Your task to perform on an android device: stop showing notifications on the lock screen Image 0: 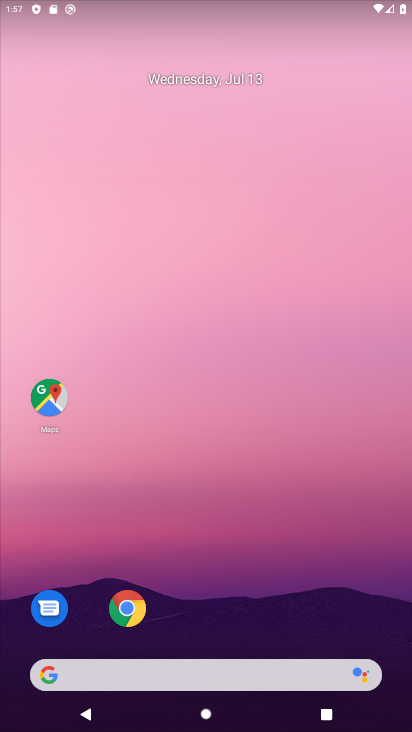
Step 0: drag from (193, 596) to (220, 128)
Your task to perform on an android device: stop showing notifications on the lock screen Image 1: 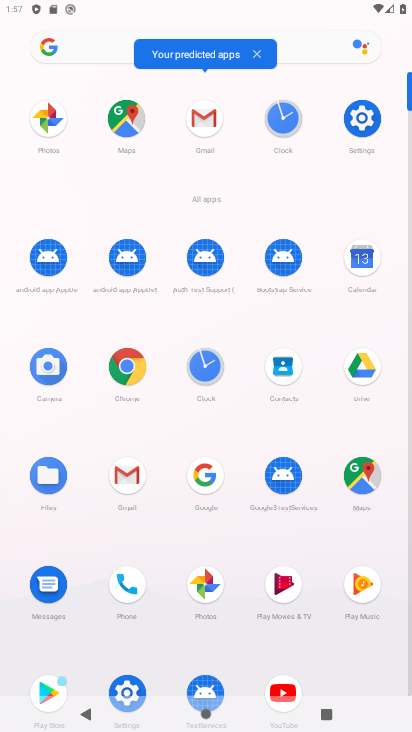
Step 1: click (130, 273)
Your task to perform on an android device: stop showing notifications on the lock screen Image 2: 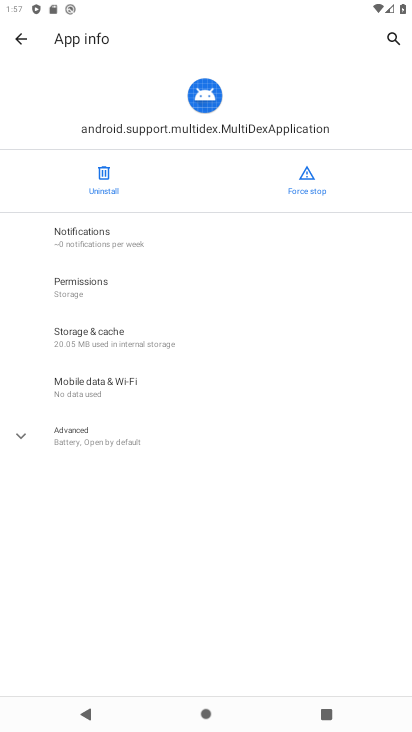
Step 2: click (19, 29)
Your task to perform on an android device: stop showing notifications on the lock screen Image 3: 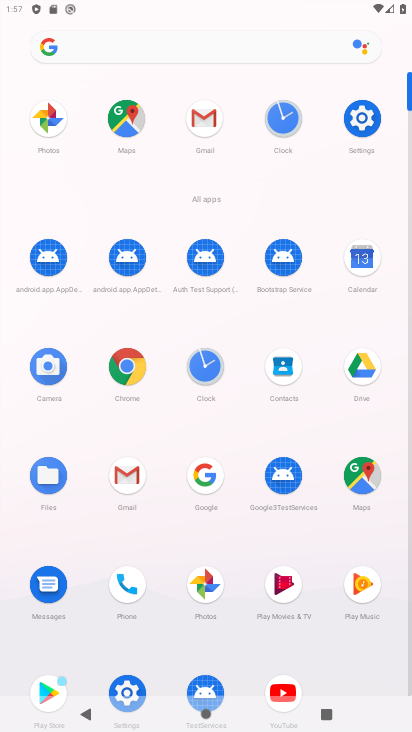
Step 3: click (19, 35)
Your task to perform on an android device: stop showing notifications on the lock screen Image 4: 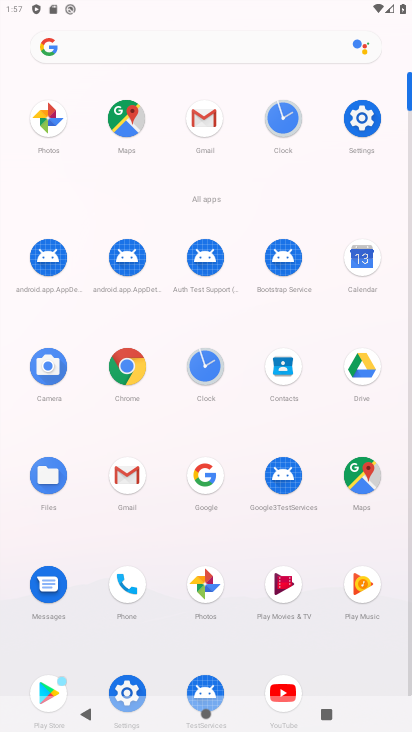
Step 4: click (364, 113)
Your task to perform on an android device: stop showing notifications on the lock screen Image 5: 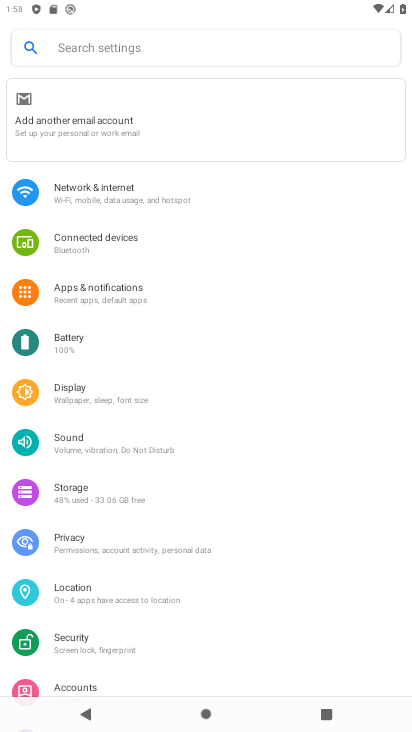
Step 5: click (96, 289)
Your task to perform on an android device: stop showing notifications on the lock screen Image 6: 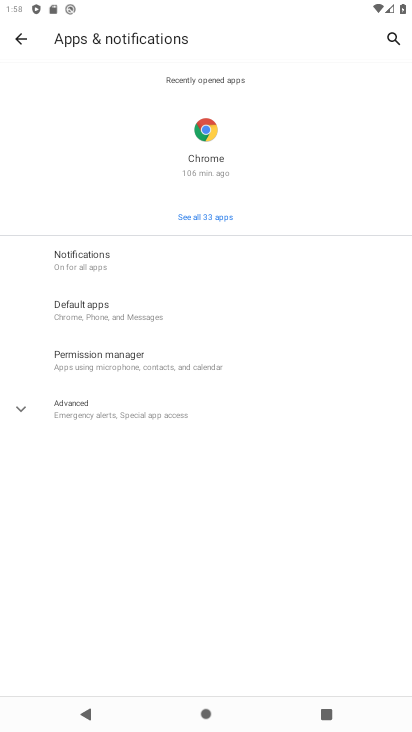
Step 6: click (70, 409)
Your task to perform on an android device: stop showing notifications on the lock screen Image 7: 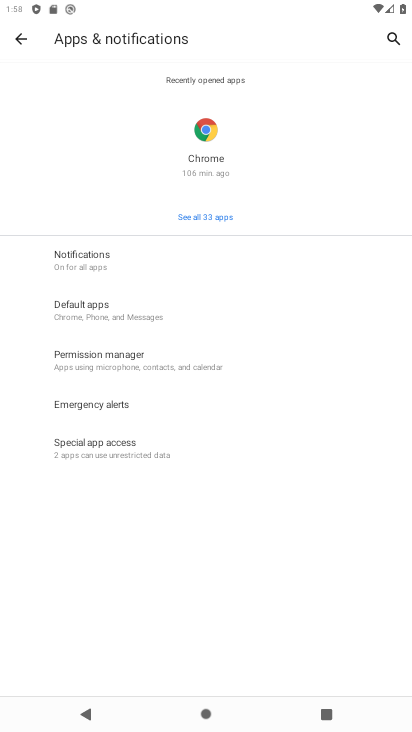
Step 7: click (99, 259)
Your task to perform on an android device: stop showing notifications on the lock screen Image 8: 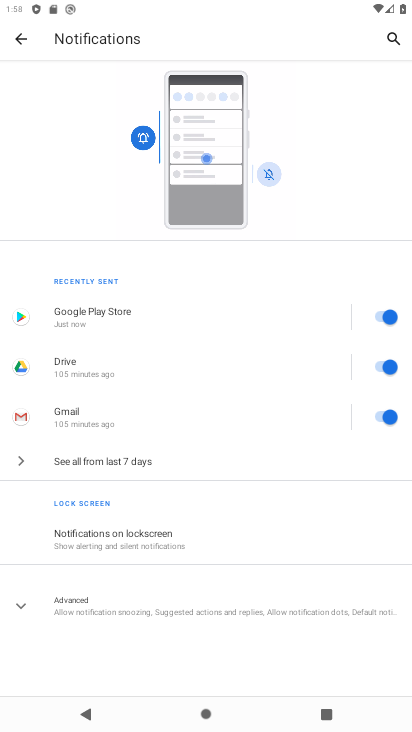
Step 8: click (87, 544)
Your task to perform on an android device: stop showing notifications on the lock screen Image 9: 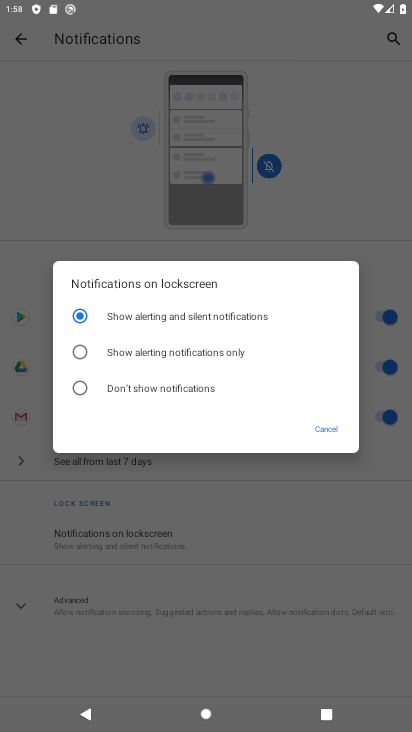
Step 9: click (88, 385)
Your task to perform on an android device: stop showing notifications on the lock screen Image 10: 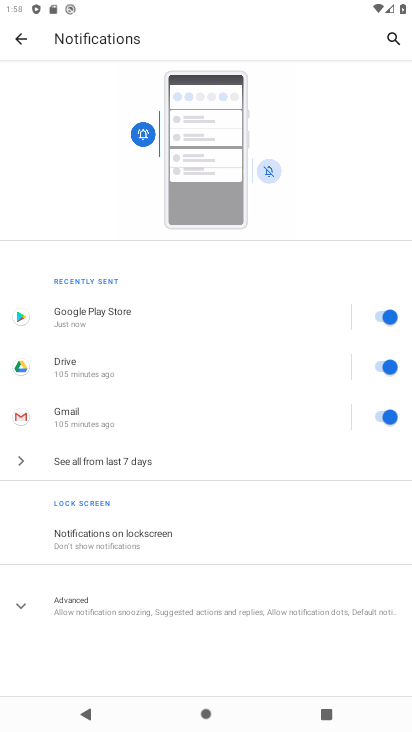
Step 10: task complete